Your task to perform on an android device: Show the shopping cart on bestbuy.com. Add "logitech g pro" to the cart on bestbuy.com, then select checkout. Image 0: 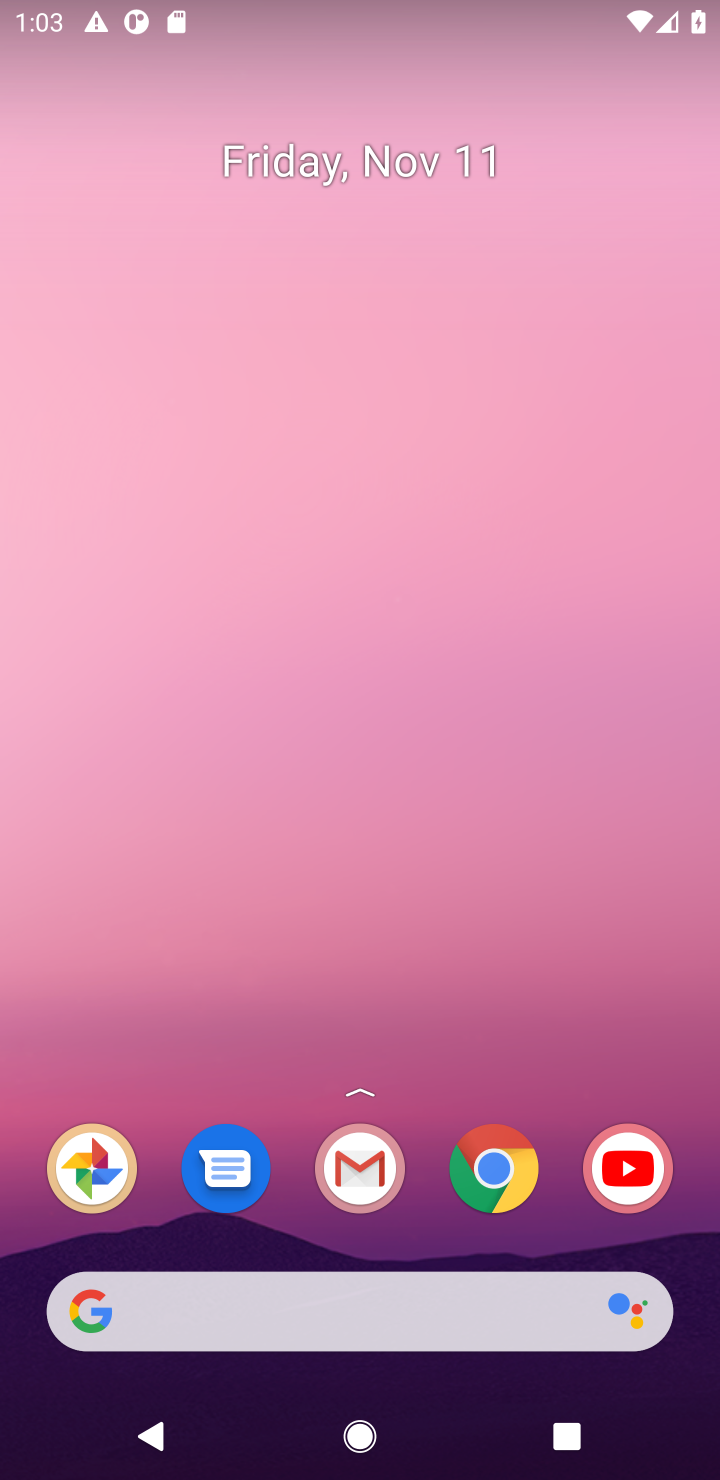
Step 0: click (487, 1178)
Your task to perform on an android device: Show the shopping cart on bestbuy.com. Add "logitech g pro" to the cart on bestbuy.com, then select checkout. Image 1: 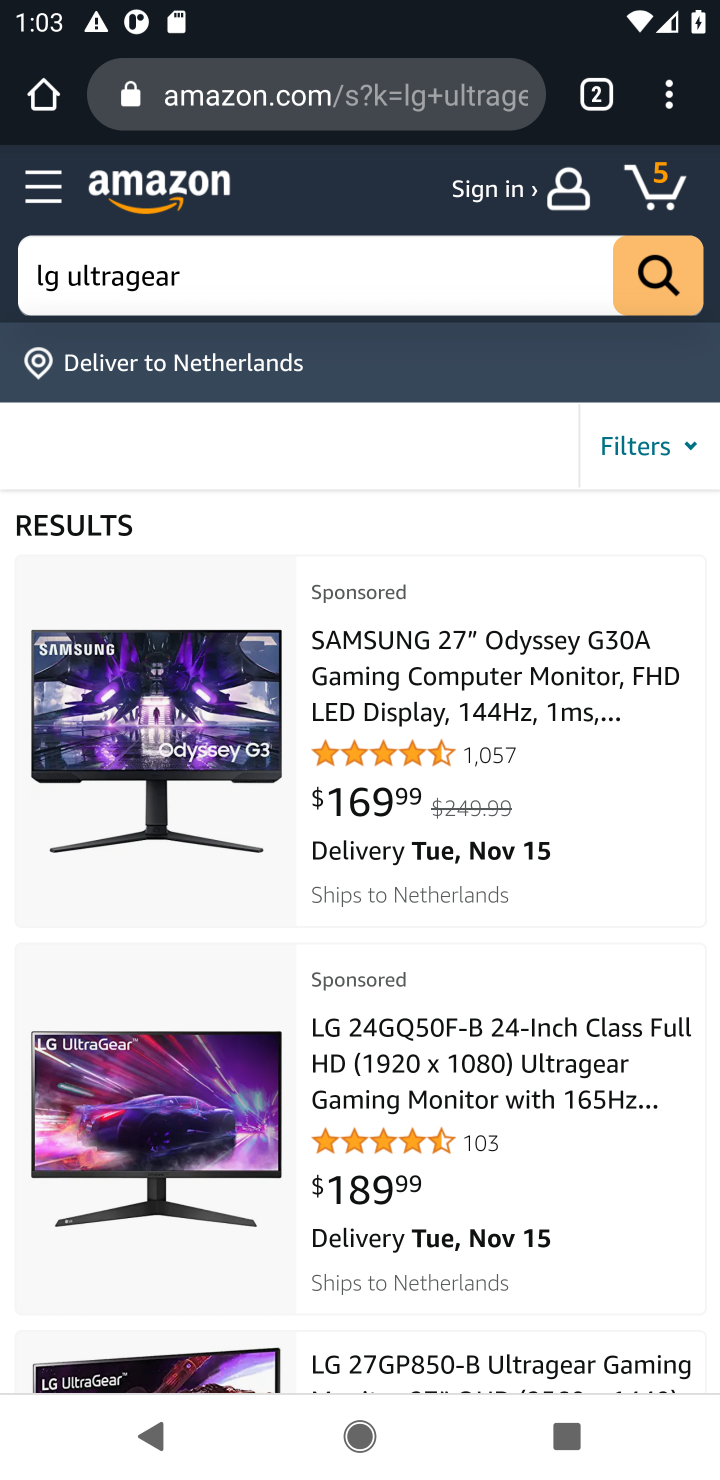
Step 1: click (287, 96)
Your task to perform on an android device: Show the shopping cart on bestbuy.com. Add "logitech g pro" to the cart on bestbuy.com, then select checkout. Image 2: 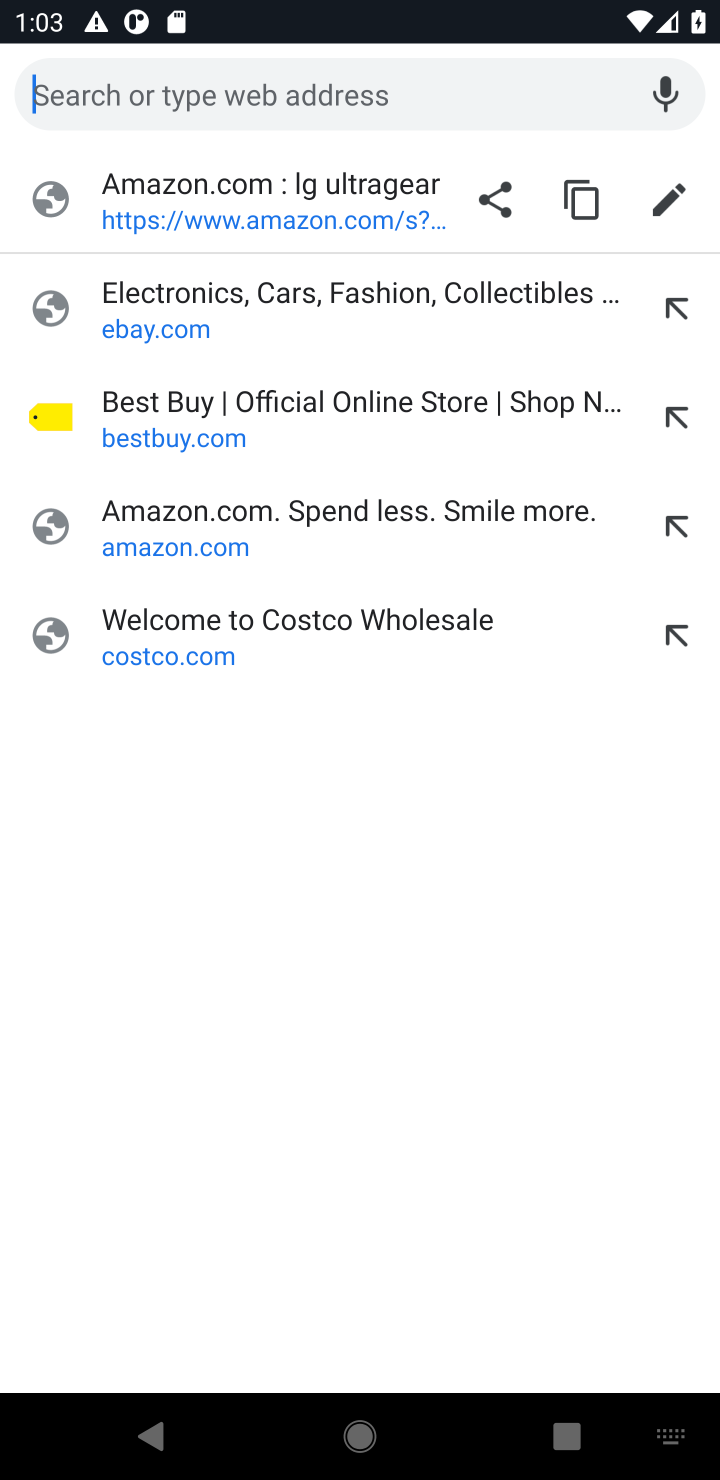
Step 2: click (156, 426)
Your task to perform on an android device: Show the shopping cart on bestbuy.com. Add "logitech g pro" to the cart on bestbuy.com, then select checkout. Image 3: 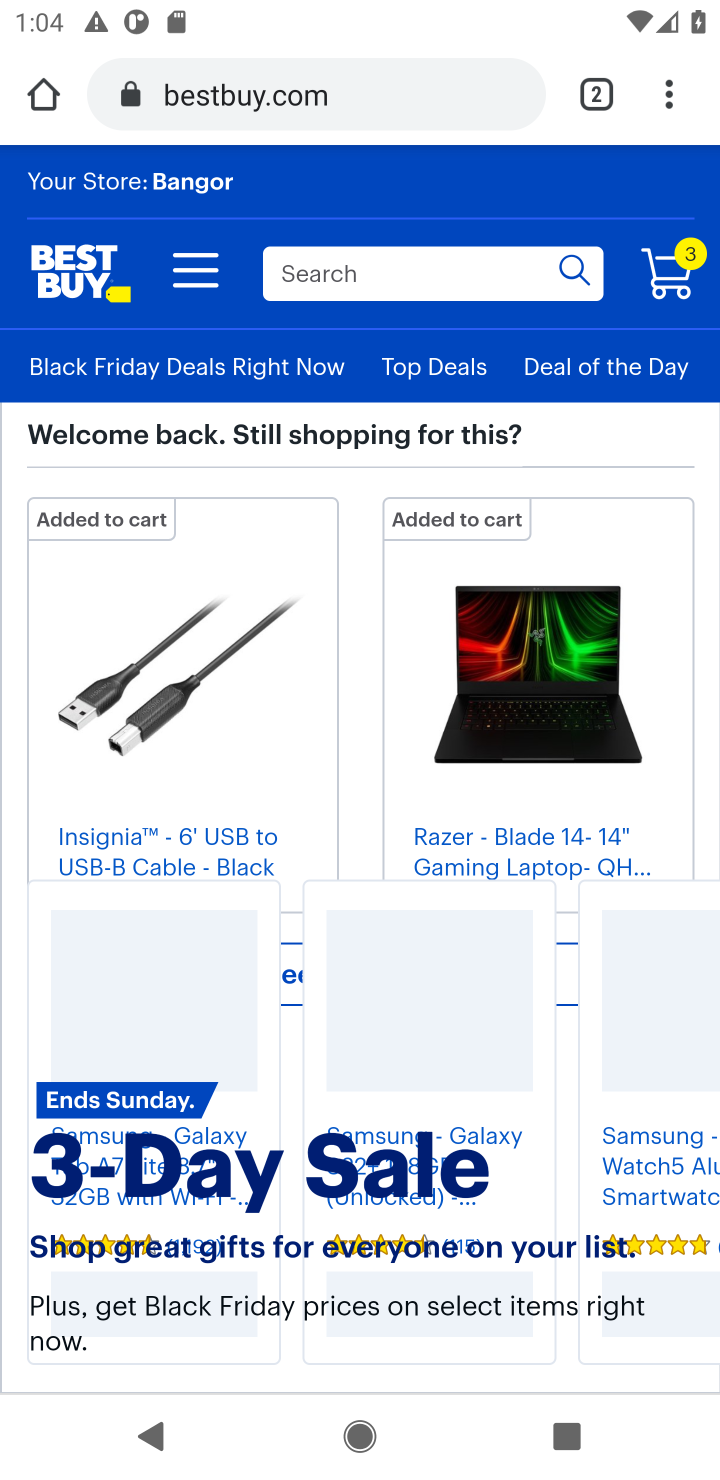
Step 3: click (664, 284)
Your task to perform on an android device: Show the shopping cart on bestbuy.com. Add "logitech g pro" to the cart on bestbuy.com, then select checkout. Image 4: 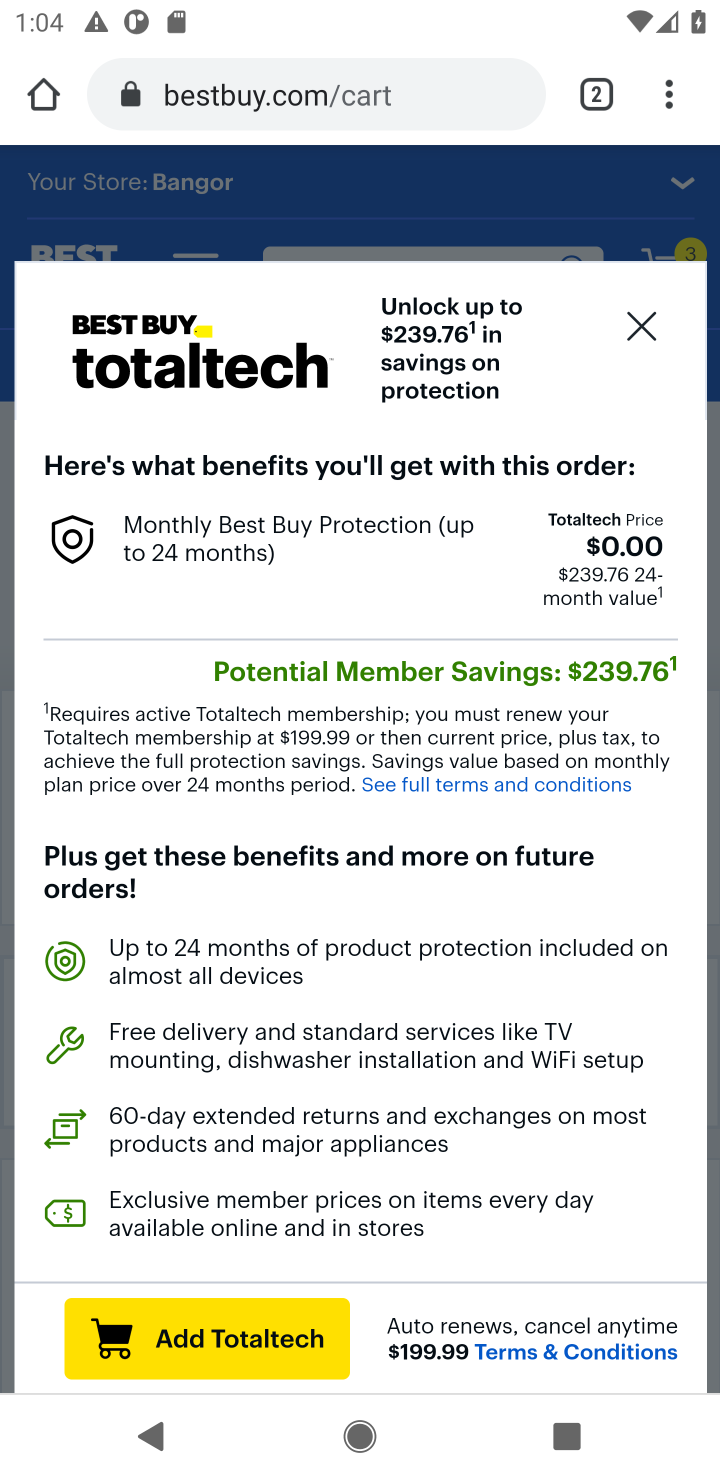
Step 4: click (646, 323)
Your task to perform on an android device: Show the shopping cart on bestbuy.com. Add "logitech g pro" to the cart on bestbuy.com, then select checkout. Image 5: 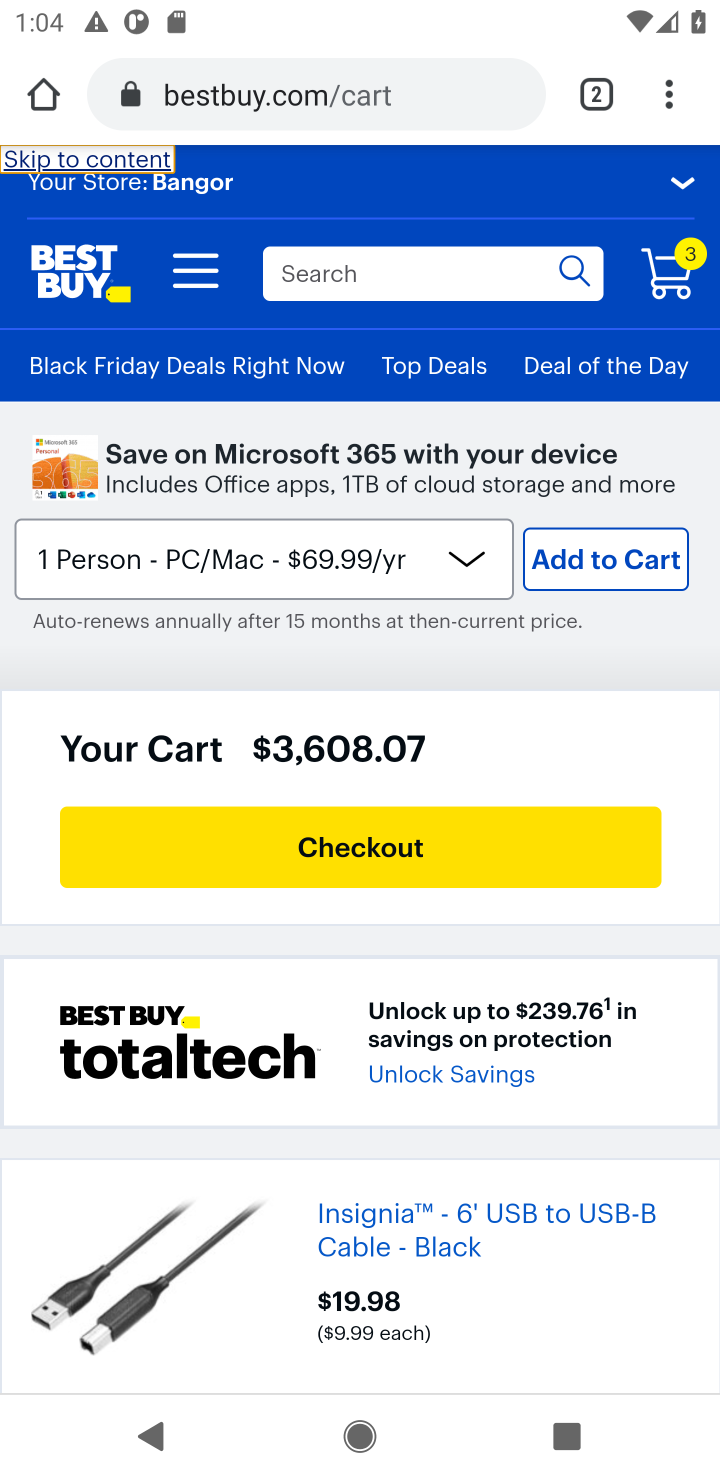
Step 5: drag from (499, 938) to (498, 560)
Your task to perform on an android device: Show the shopping cart on bestbuy.com. Add "logitech g pro" to the cart on bestbuy.com, then select checkout. Image 6: 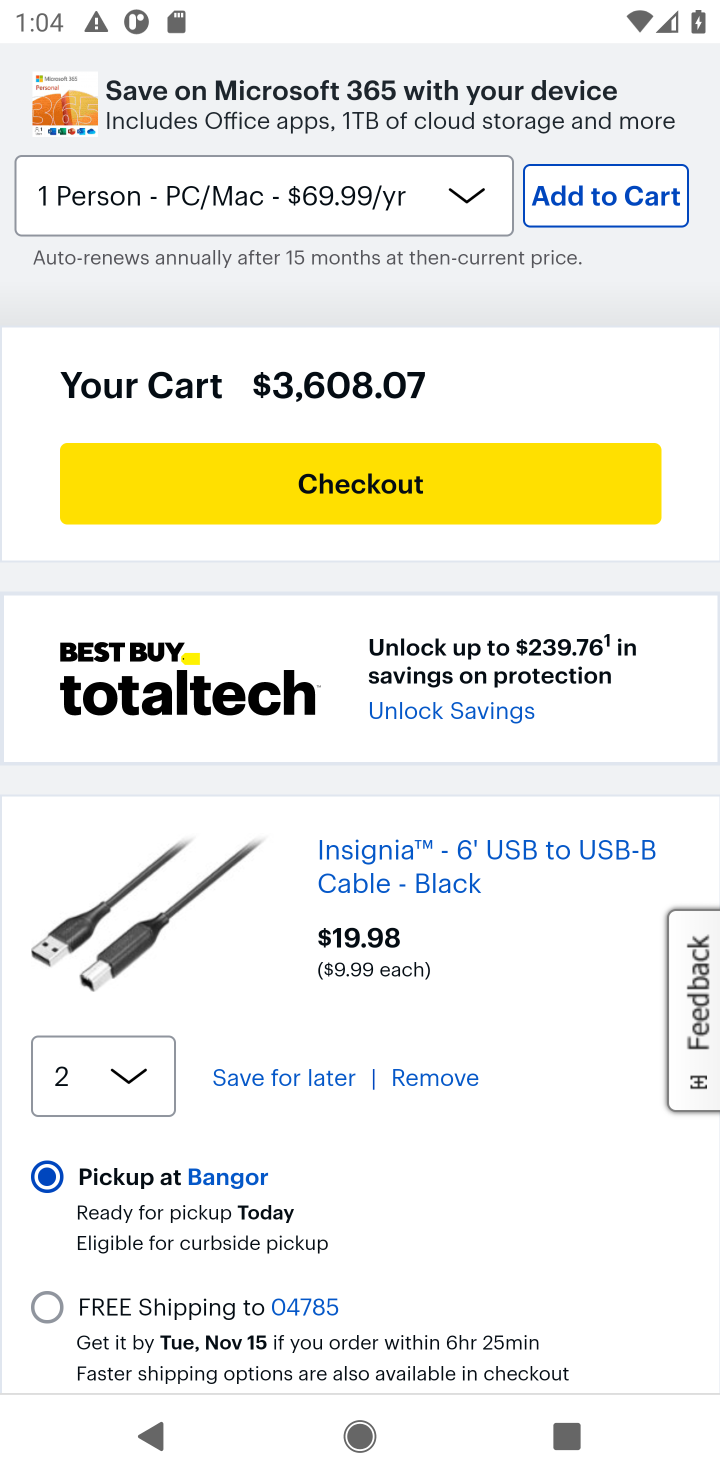
Step 6: drag from (605, 345) to (616, 1029)
Your task to perform on an android device: Show the shopping cart on bestbuy.com. Add "logitech g pro" to the cart on bestbuy.com, then select checkout. Image 7: 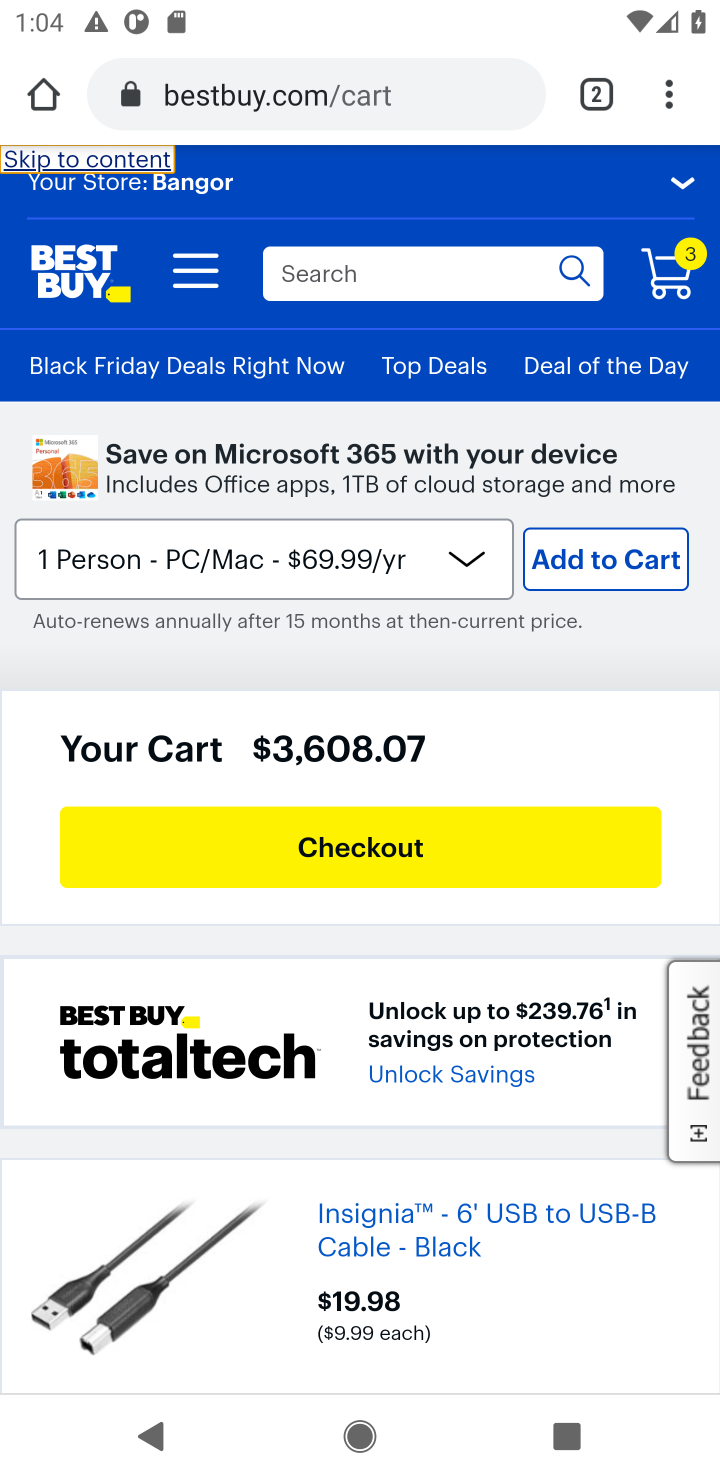
Step 7: click (334, 272)
Your task to perform on an android device: Show the shopping cart on bestbuy.com. Add "logitech g pro" to the cart on bestbuy.com, then select checkout. Image 8: 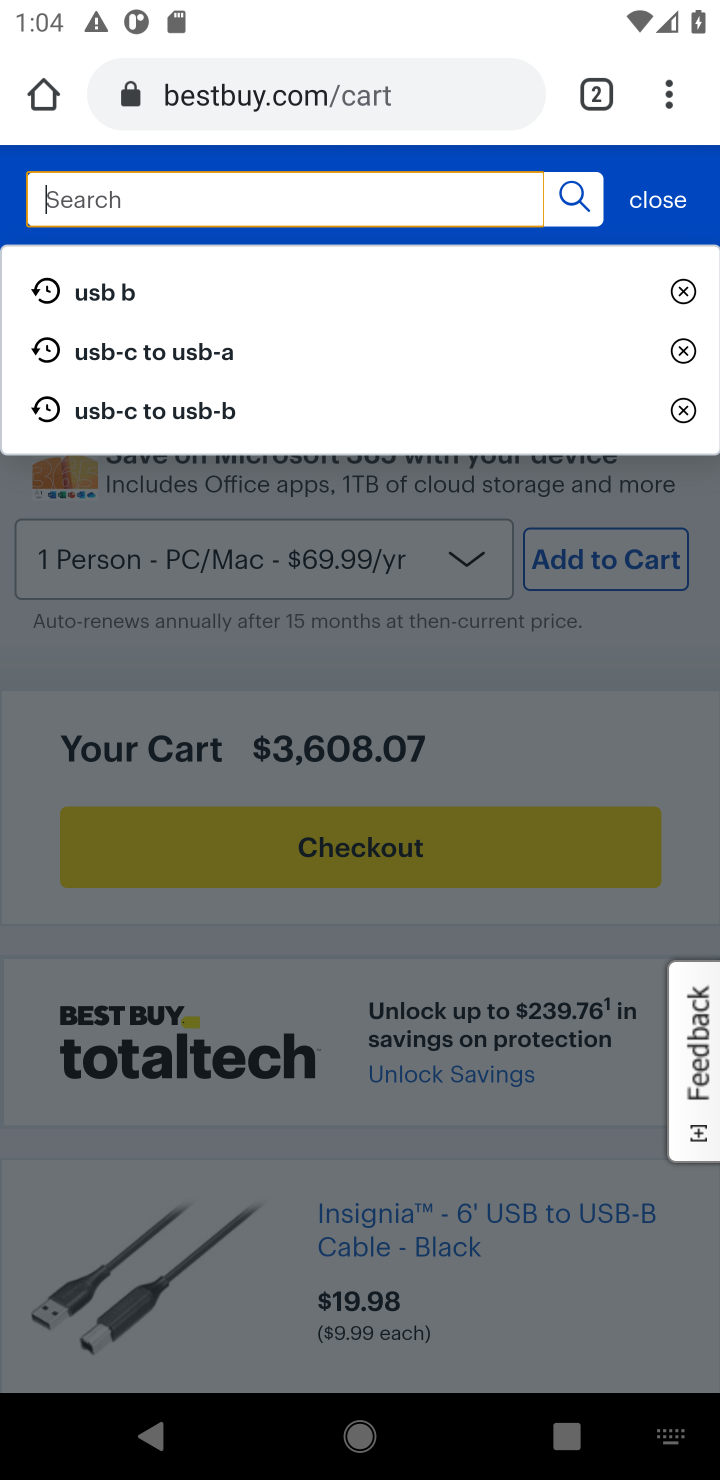
Step 8: type "logitech g pro"
Your task to perform on an android device: Show the shopping cart on bestbuy.com. Add "logitech g pro" to the cart on bestbuy.com, then select checkout. Image 9: 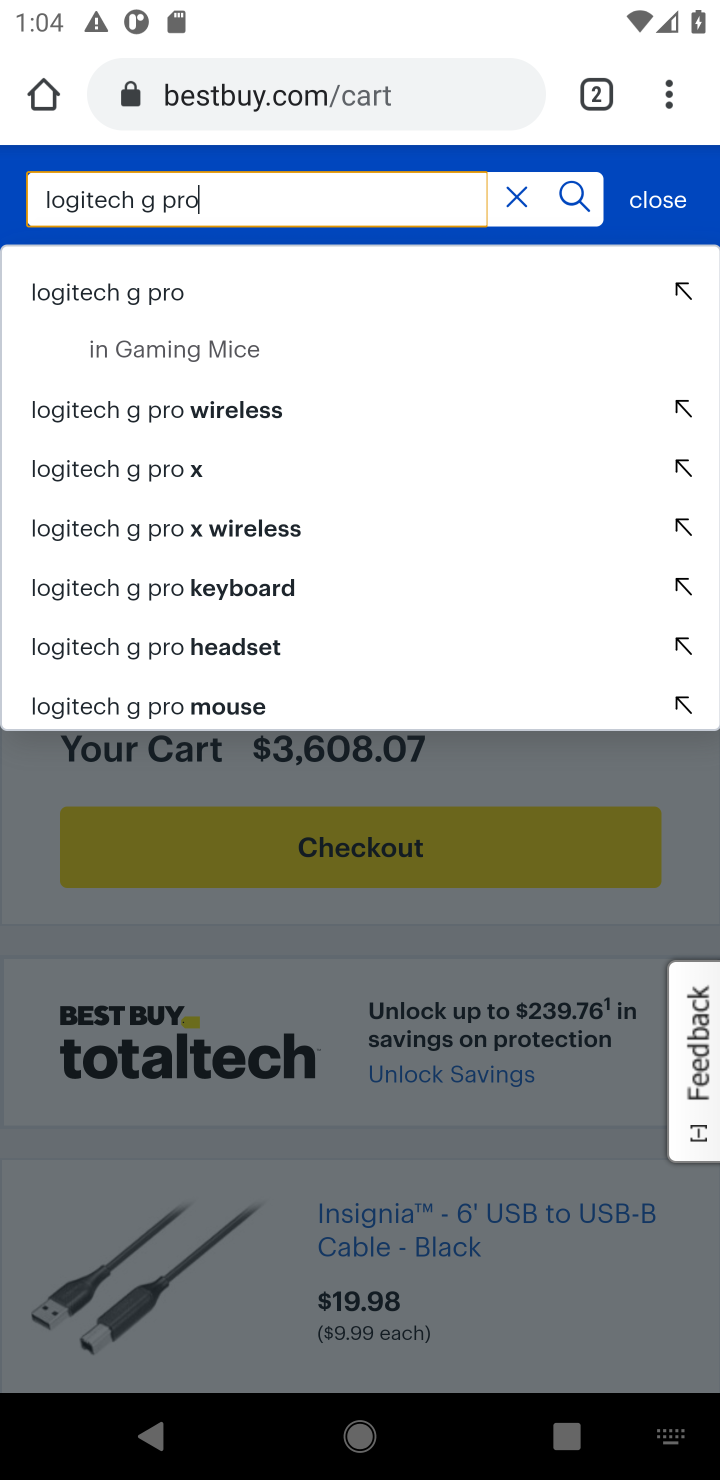
Step 9: click (135, 306)
Your task to perform on an android device: Show the shopping cart on bestbuy.com. Add "logitech g pro" to the cart on bestbuy.com, then select checkout. Image 10: 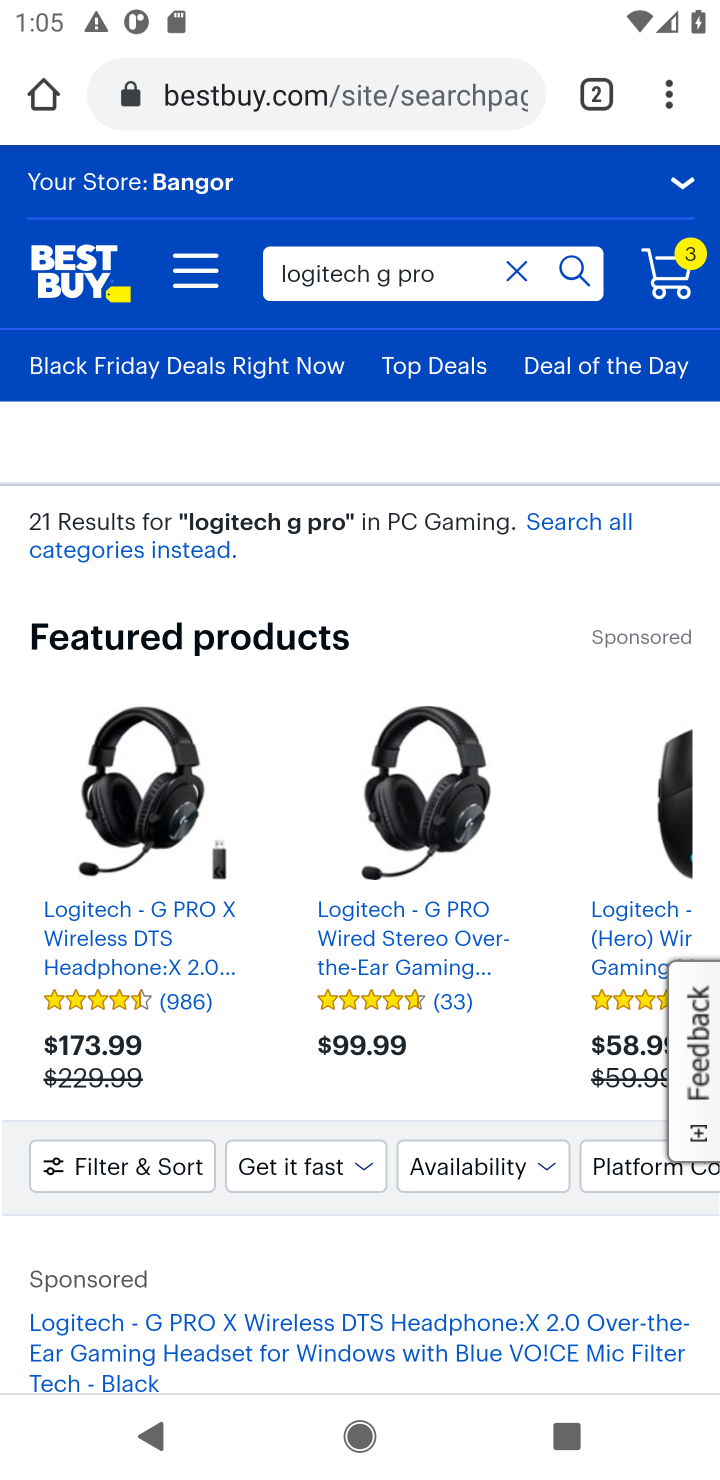
Step 10: drag from (346, 1074) to (400, 423)
Your task to perform on an android device: Show the shopping cart on bestbuy.com. Add "logitech g pro" to the cart on bestbuy.com, then select checkout. Image 11: 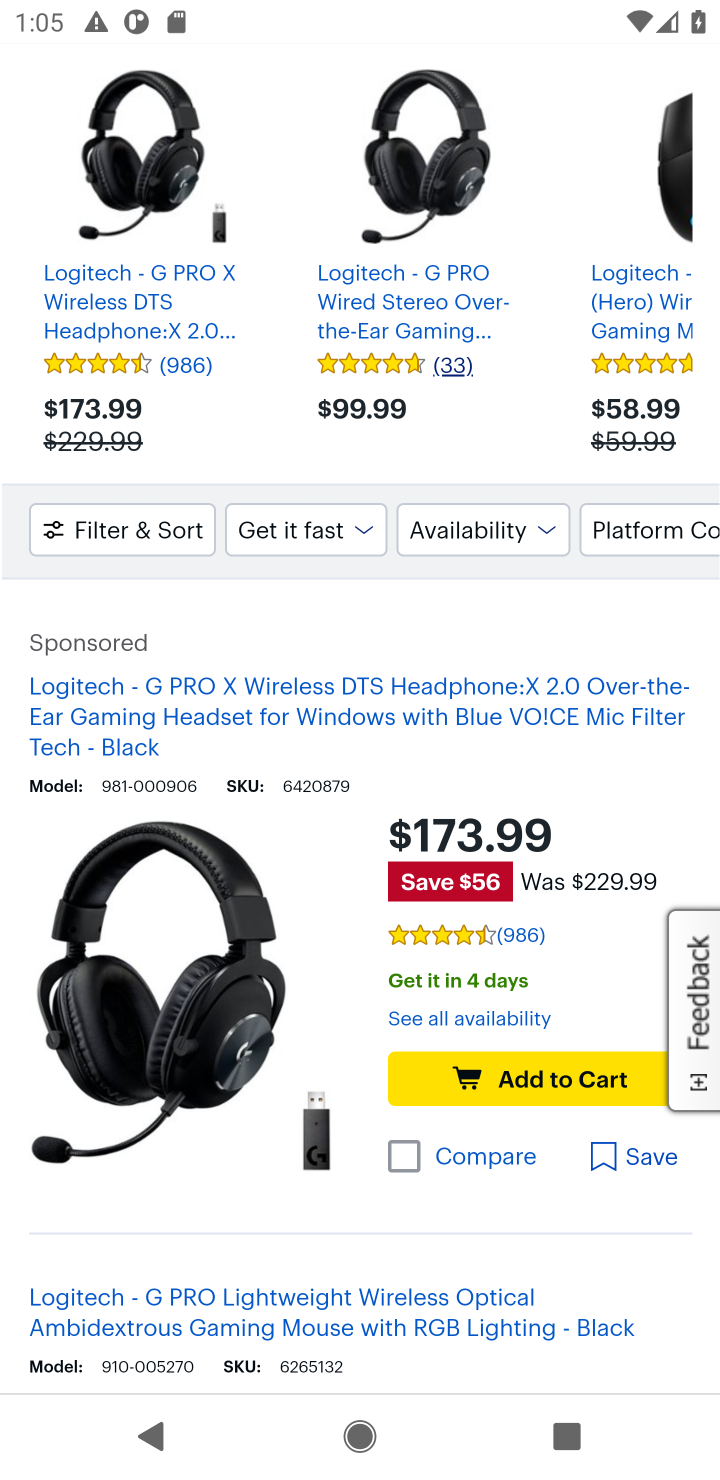
Step 11: click (572, 1076)
Your task to perform on an android device: Show the shopping cart on bestbuy.com. Add "logitech g pro" to the cart on bestbuy.com, then select checkout. Image 12: 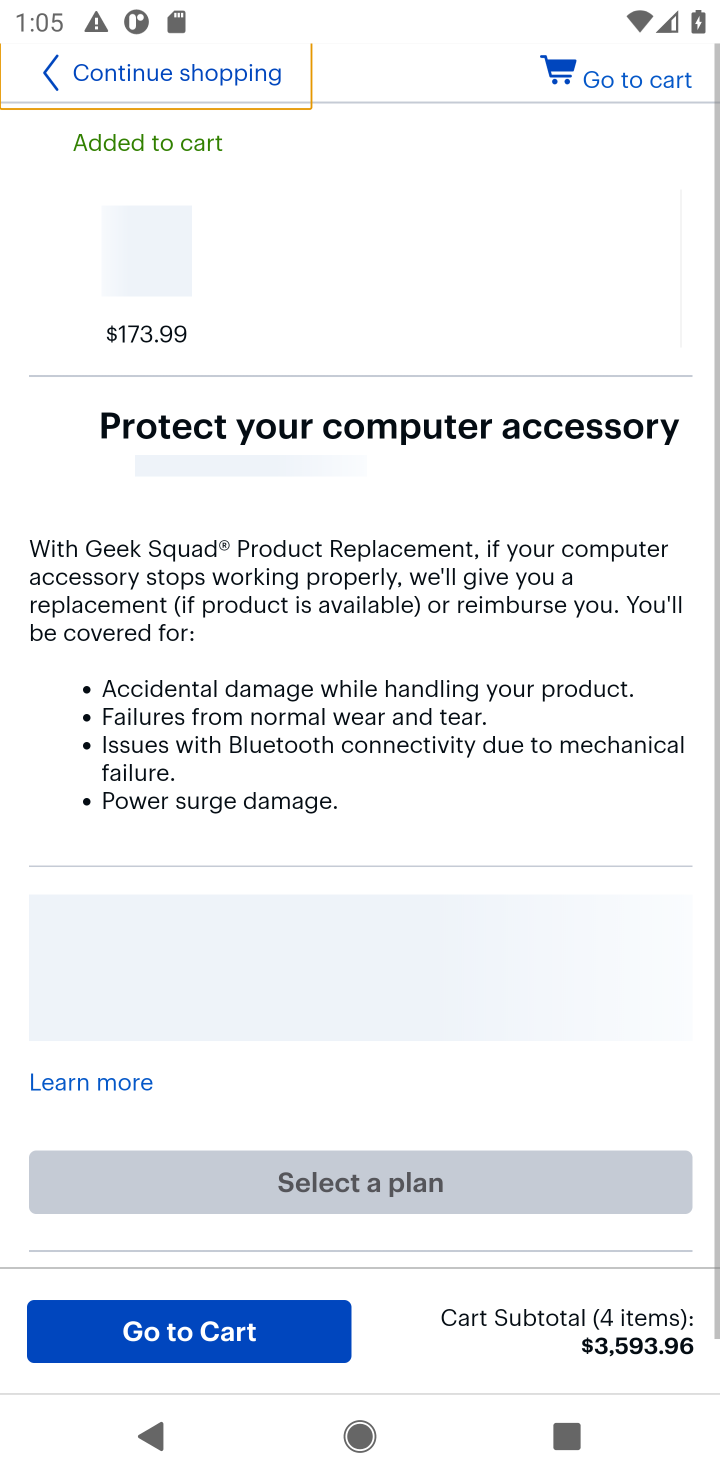
Step 12: click (619, 85)
Your task to perform on an android device: Show the shopping cart on bestbuy.com. Add "logitech g pro" to the cart on bestbuy.com, then select checkout. Image 13: 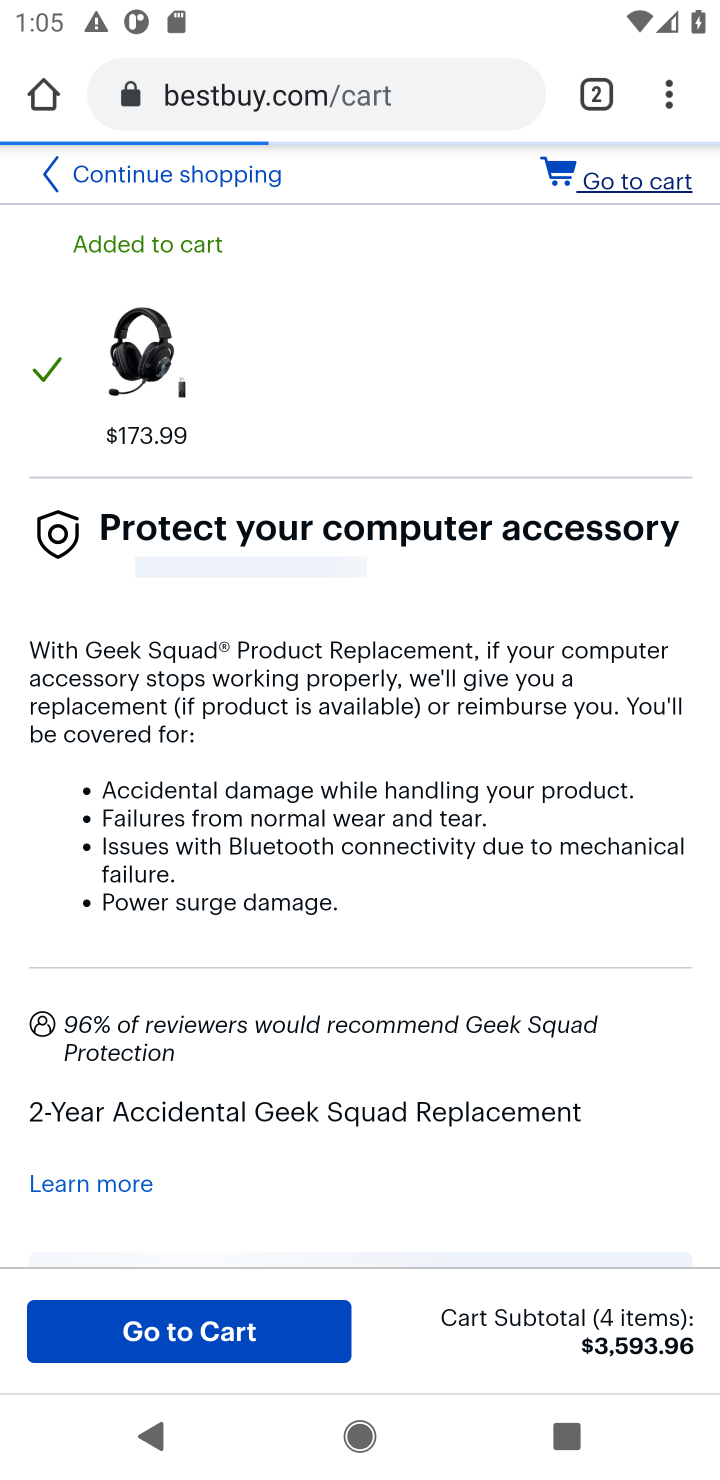
Step 13: click (630, 185)
Your task to perform on an android device: Show the shopping cart on bestbuy.com. Add "logitech g pro" to the cart on bestbuy.com, then select checkout. Image 14: 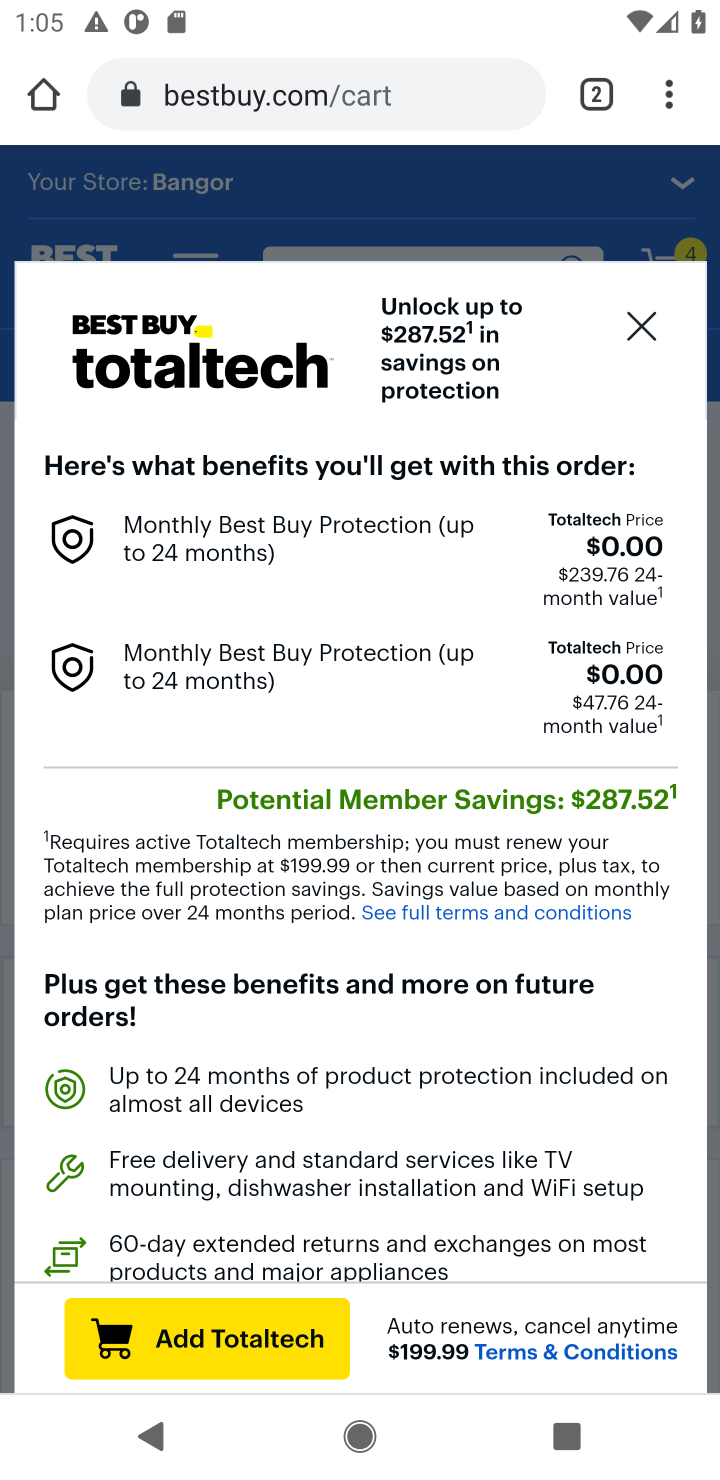
Step 14: click (641, 319)
Your task to perform on an android device: Show the shopping cart on bestbuy.com. Add "logitech g pro" to the cart on bestbuy.com, then select checkout. Image 15: 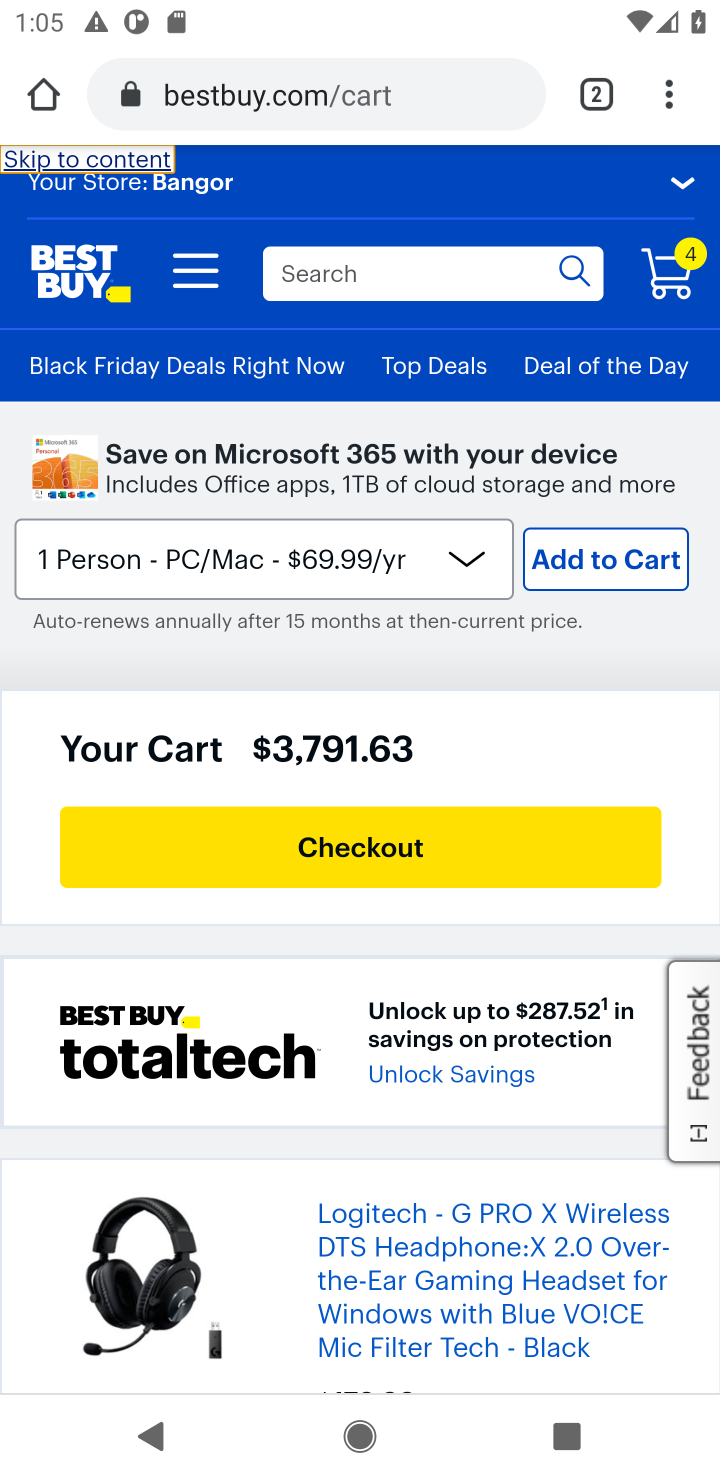
Step 15: click (365, 852)
Your task to perform on an android device: Show the shopping cart on bestbuy.com. Add "logitech g pro" to the cart on bestbuy.com, then select checkout. Image 16: 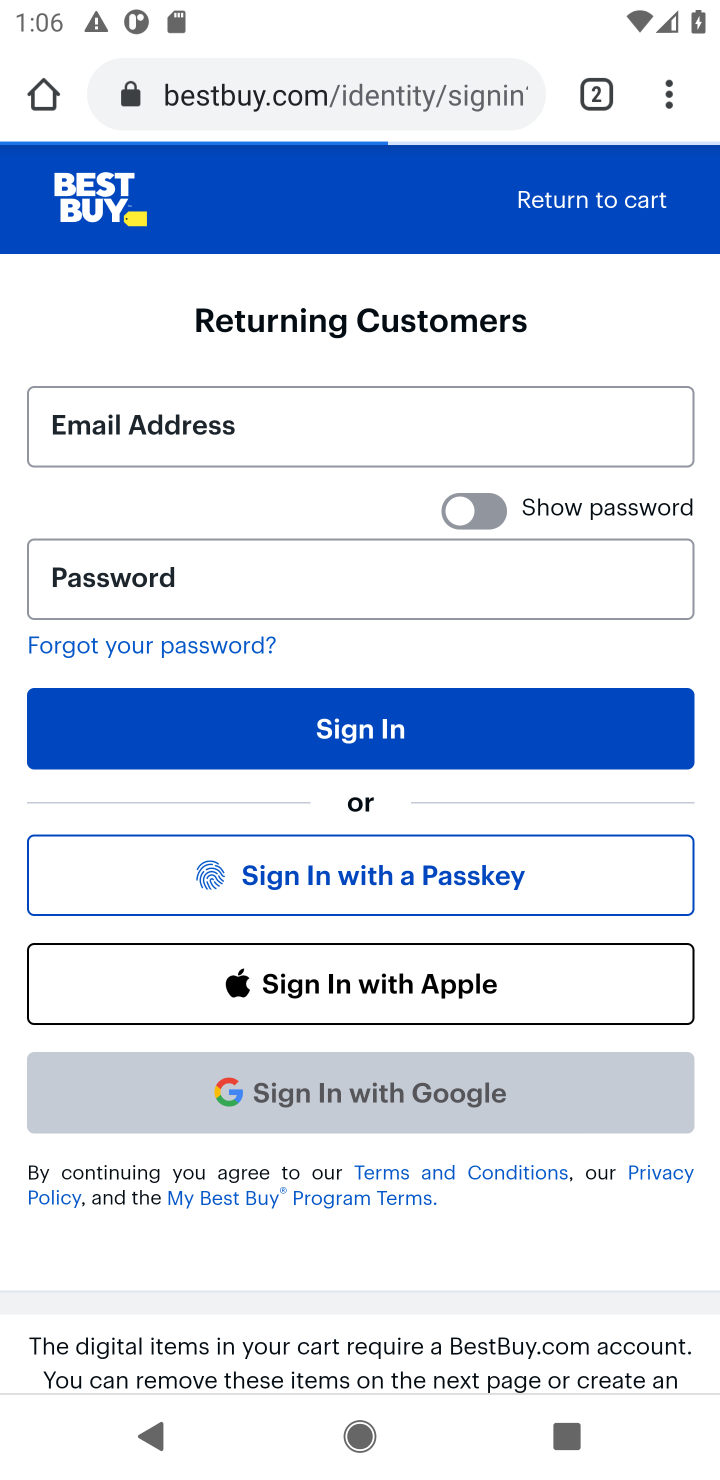
Step 16: task complete